Your task to perform on an android device: View the shopping cart on newegg. Search for "macbook pro 15 inch" on newegg, select the first entry, and add it to the cart. Image 0: 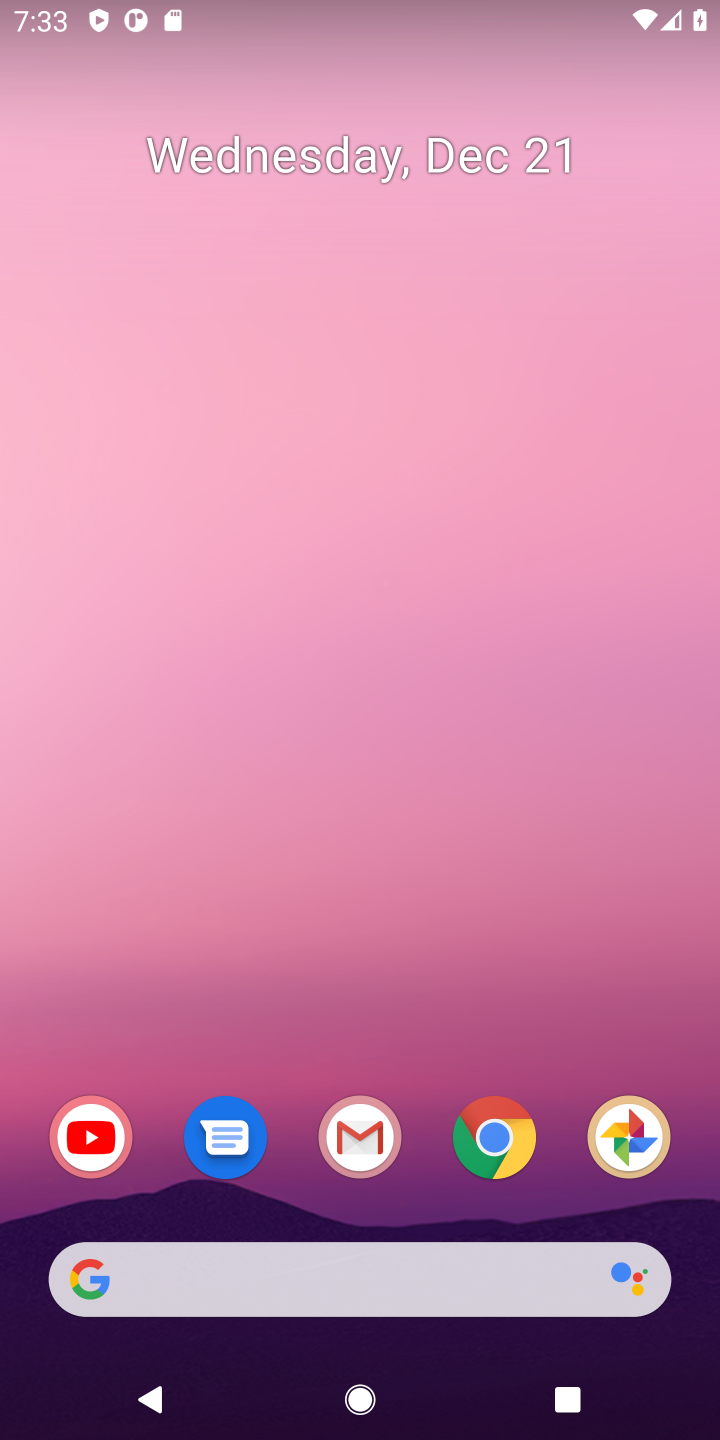
Step 0: click (511, 1153)
Your task to perform on an android device: View the shopping cart on newegg. Search for "macbook pro 15 inch" on newegg, select the first entry, and add it to the cart. Image 1: 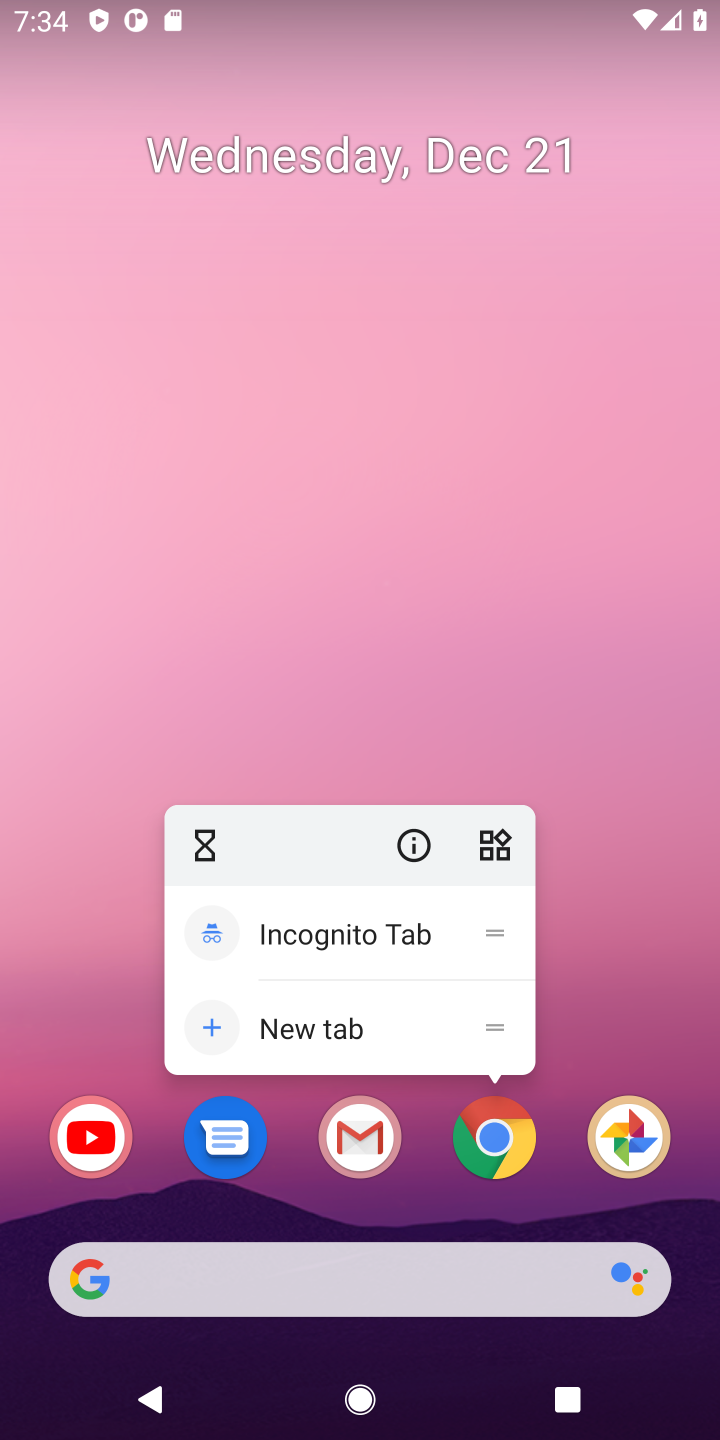
Step 1: click (494, 1144)
Your task to perform on an android device: View the shopping cart on newegg. Search for "macbook pro 15 inch" on newegg, select the first entry, and add it to the cart. Image 2: 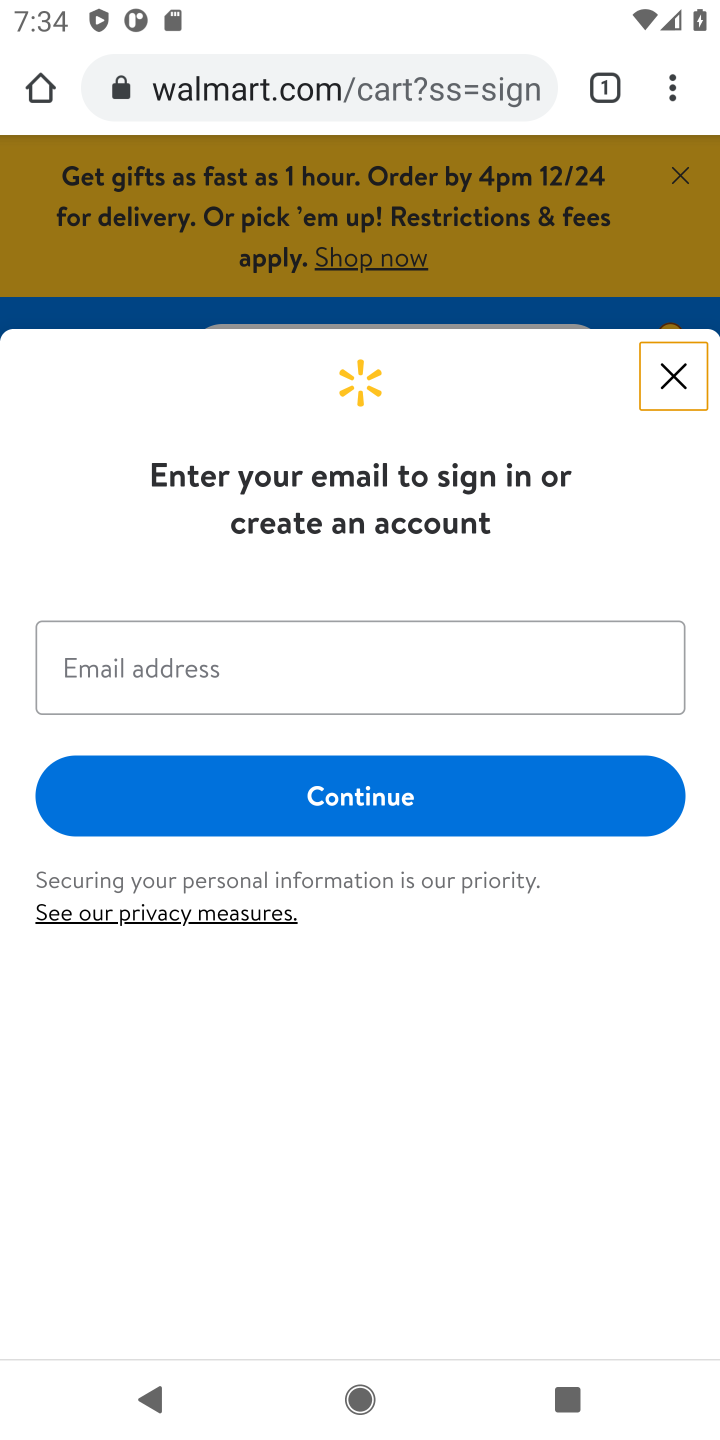
Step 2: click (230, 101)
Your task to perform on an android device: View the shopping cart on newegg. Search for "macbook pro 15 inch" on newegg, select the first entry, and add it to the cart. Image 3: 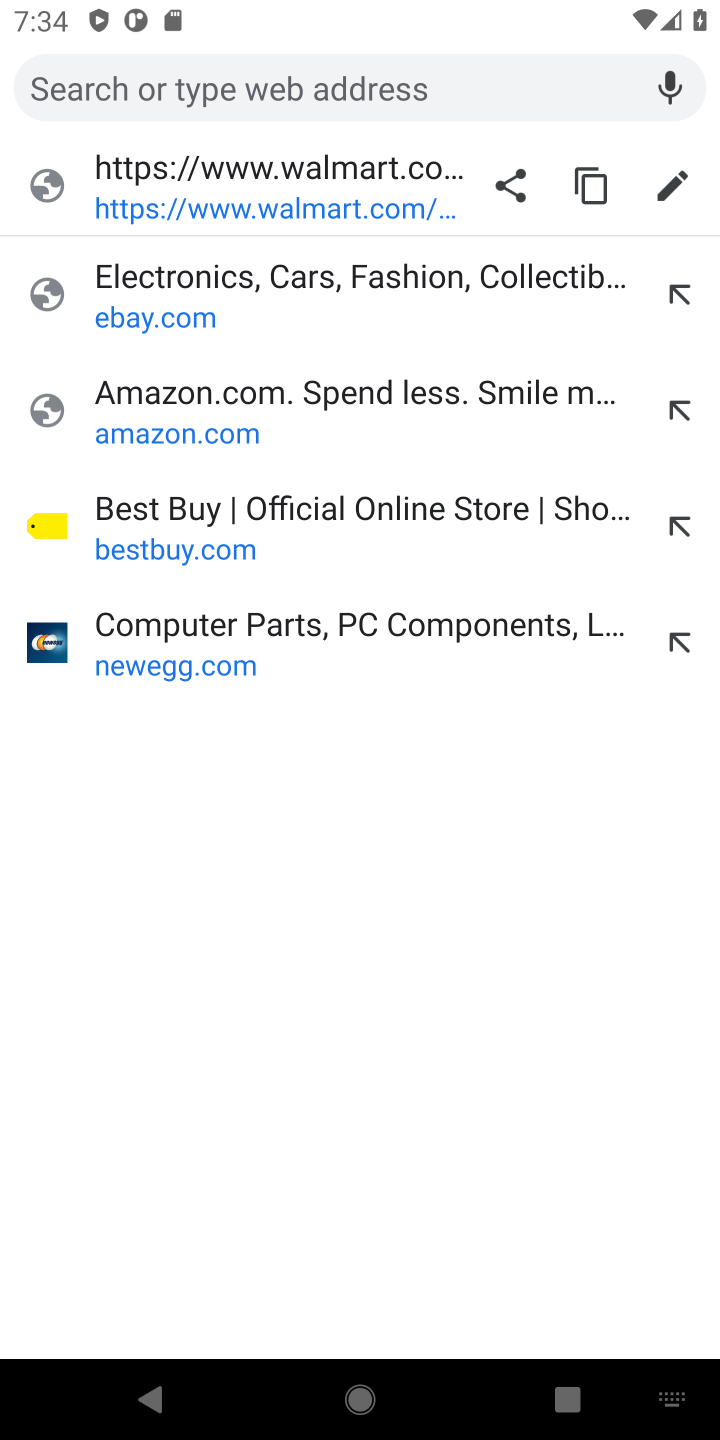
Step 3: click (184, 661)
Your task to perform on an android device: View the shopping cart on newegg. Search for "macbook pro 15 inch" on newegg, select the first entry, and add it to the cart. Image 4: 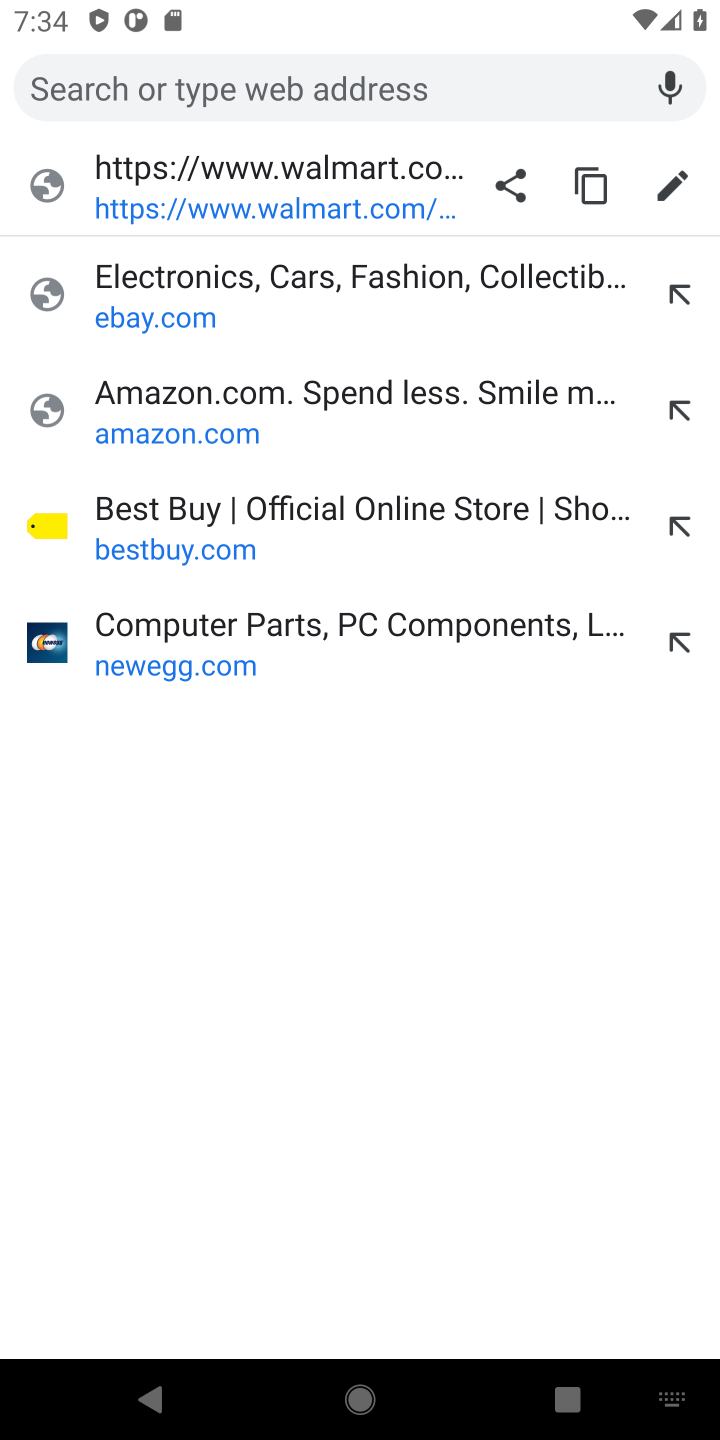
Step 4: click (146, 670)
Your task to perform on an android device: View the shopping cart on newegg. Search for "macbook pro 15 inch" on newegg, select the first entry, and add it to the cart. Image 5: 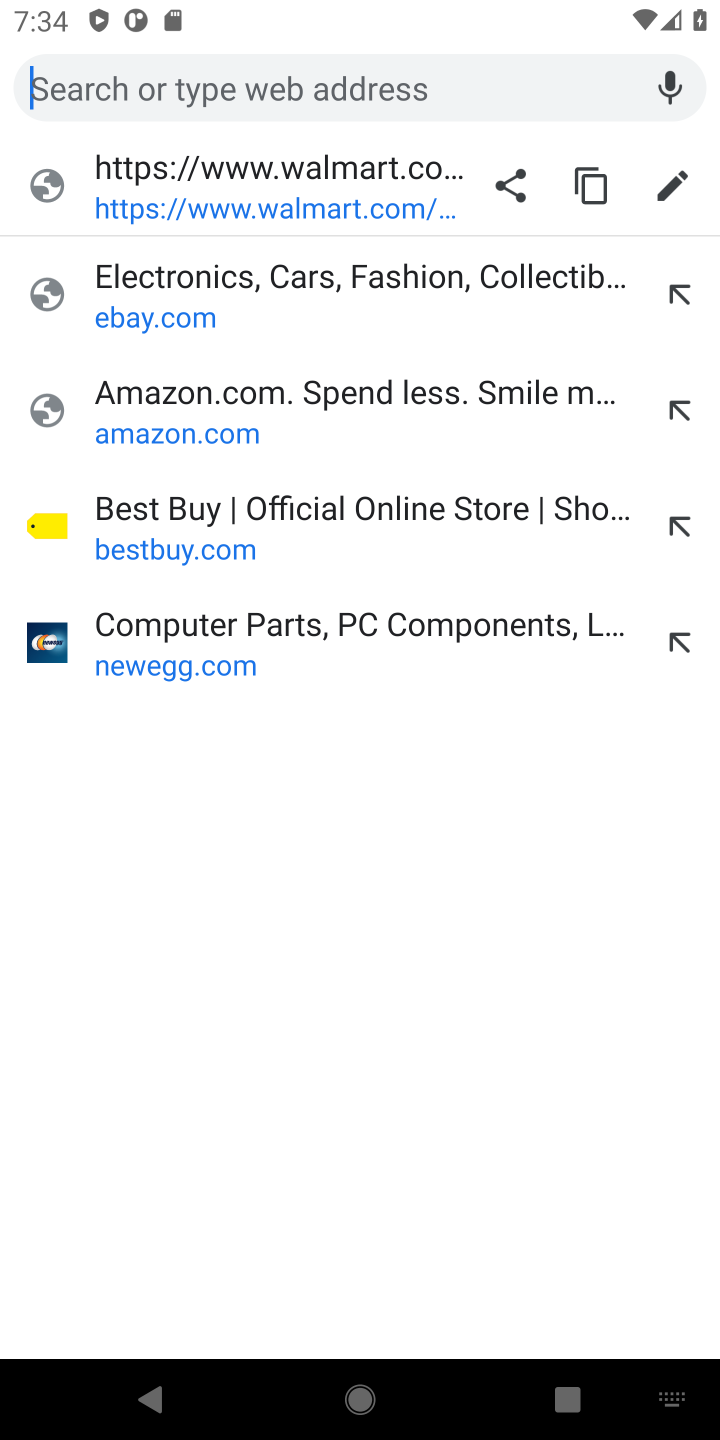
Step 5: click (137, 665)
Your task to perform on an android device: View the shopping cart on newegg. Search for "macbook pro 15 inch" on newegg, select the first entry, and add it to the cart. Image 6: 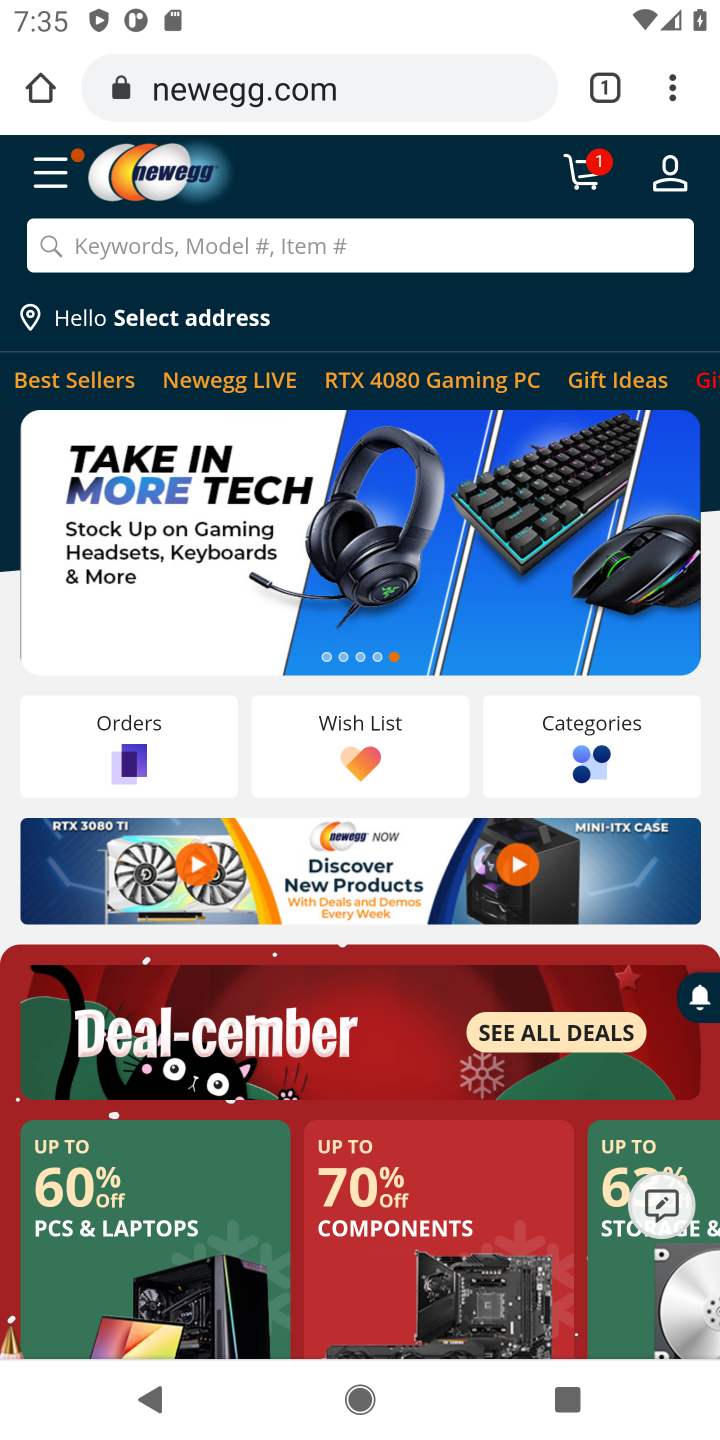
Step 6: click (579, 186)
Your task to perform on an android device: View the shopping cart on newegg. Search for "macbook pro 15 inch" on newegg, select the first entry, and add it to the cart. Image 7: 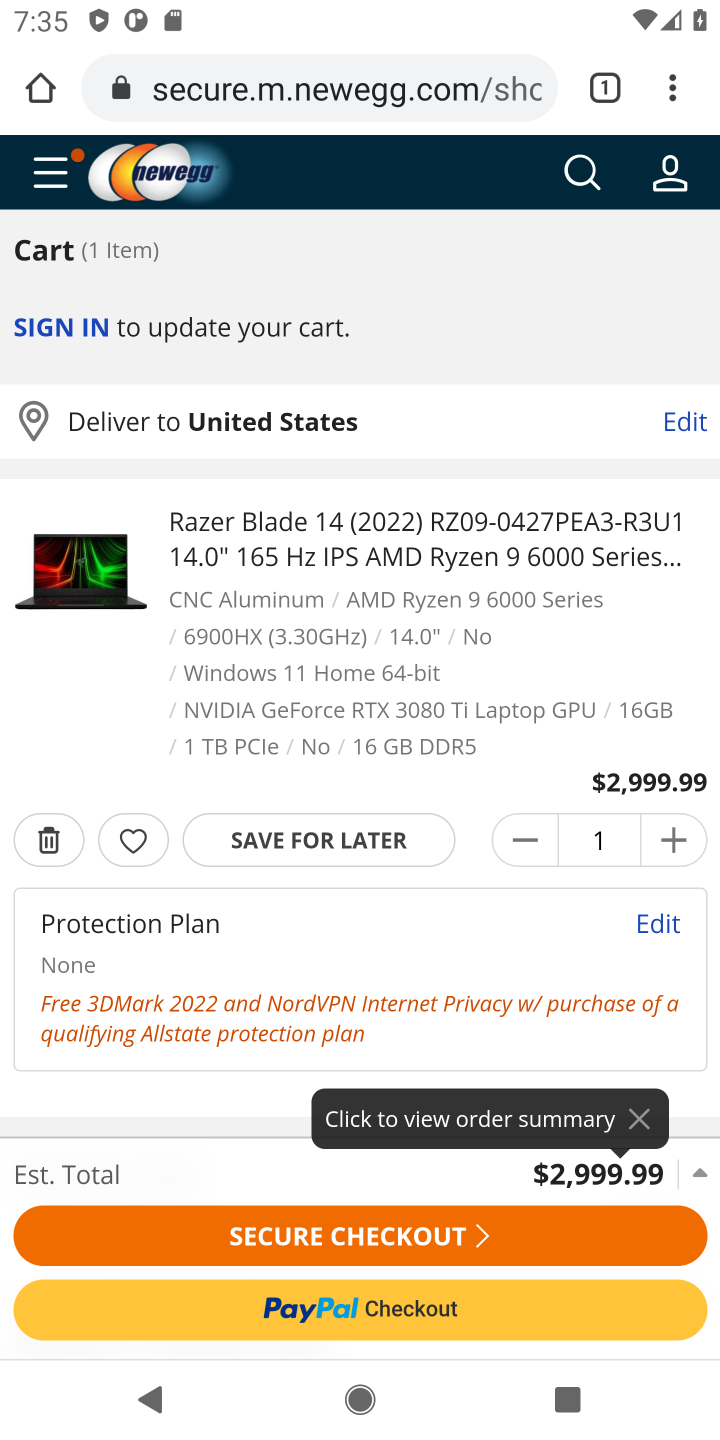
Step 7: click (575, 177)
Your task to perform on an android device: View the shopping cart on newegg. Search for "macbook pro 15 inch" on newegg, select the first entry, and add it to the cart. Image 8: 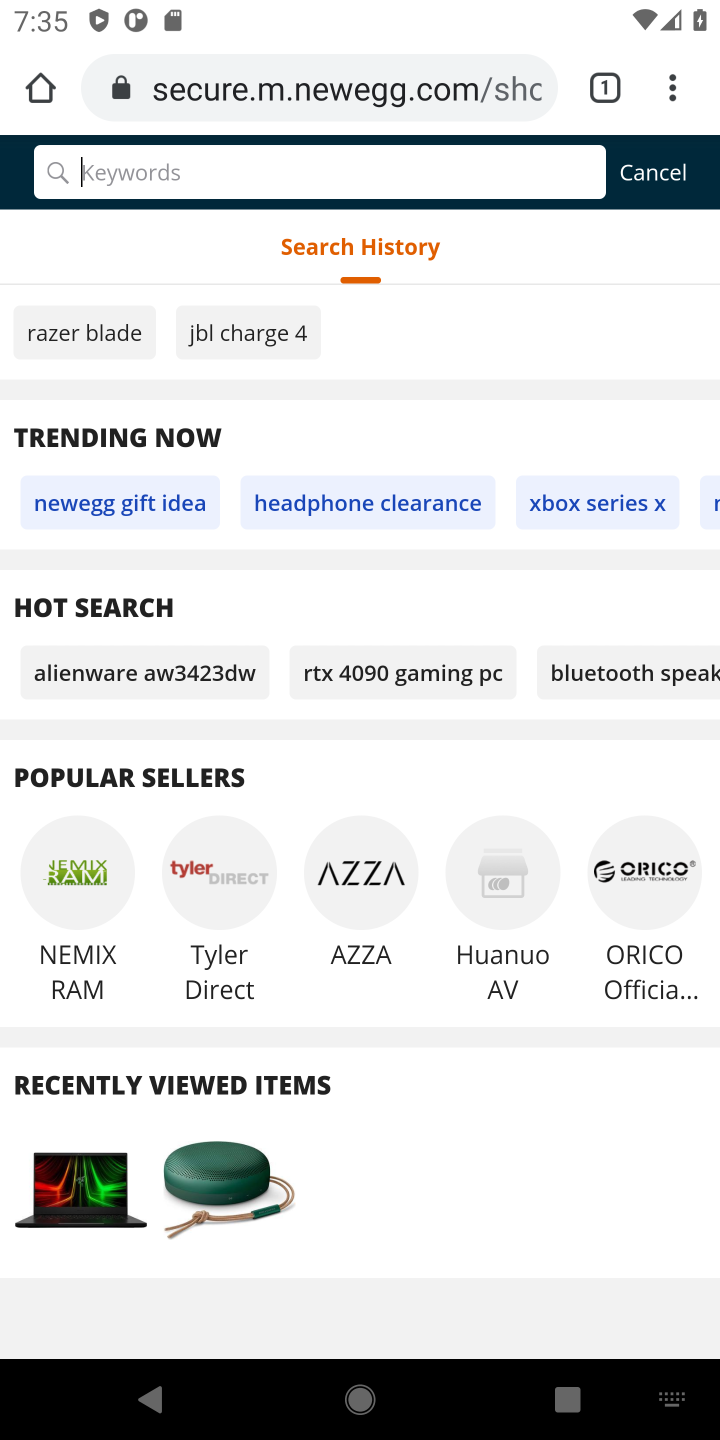
Step 8: type "macbook pro 15 inch"
Your task to perform on an android device: View the shopping cart on newegg. Search for "macbook pro 15 inch" on newegg, select the first entry, and add it to the cart. Image 9: 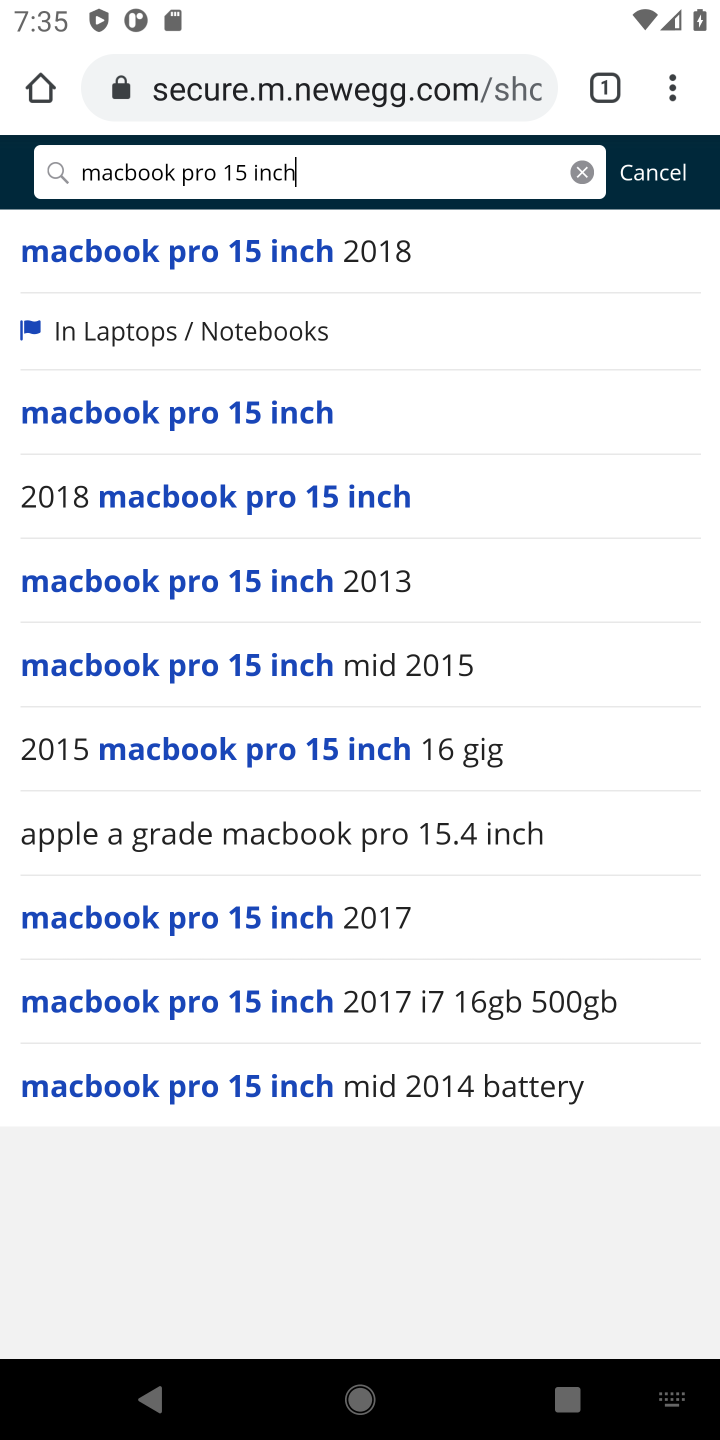
Step 9: click (155, 421)
Your task to perform on an android device: View the shopping cart on newegg. Search for "macbook pro 15 inch" on newegg, select the first entry, and add it to the cart. Image 10: 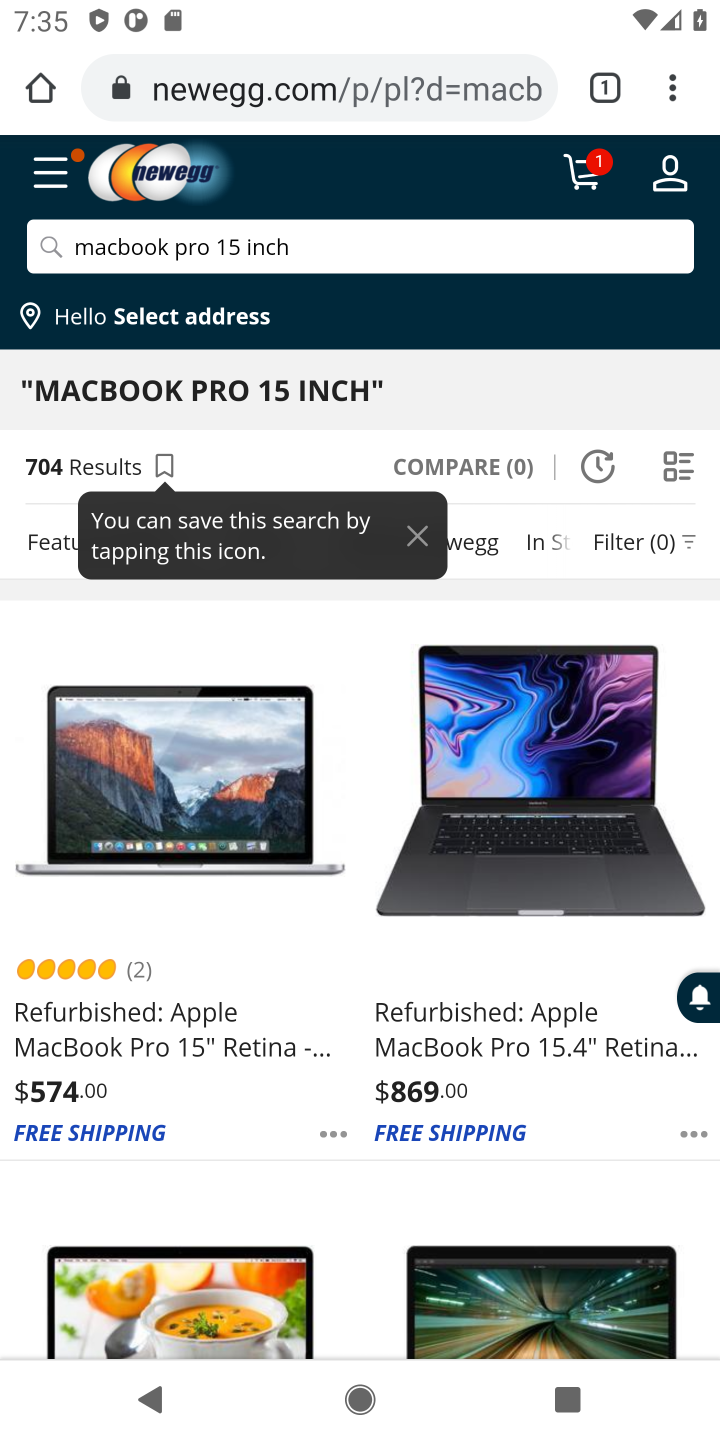
Step 10: click (131, 1051)
Your task to perform on an android device: View the shopping cart on newegg. Search for "macbook pro 15 inch" on newegg, select the first entry, and add it to the cart. Image 11: 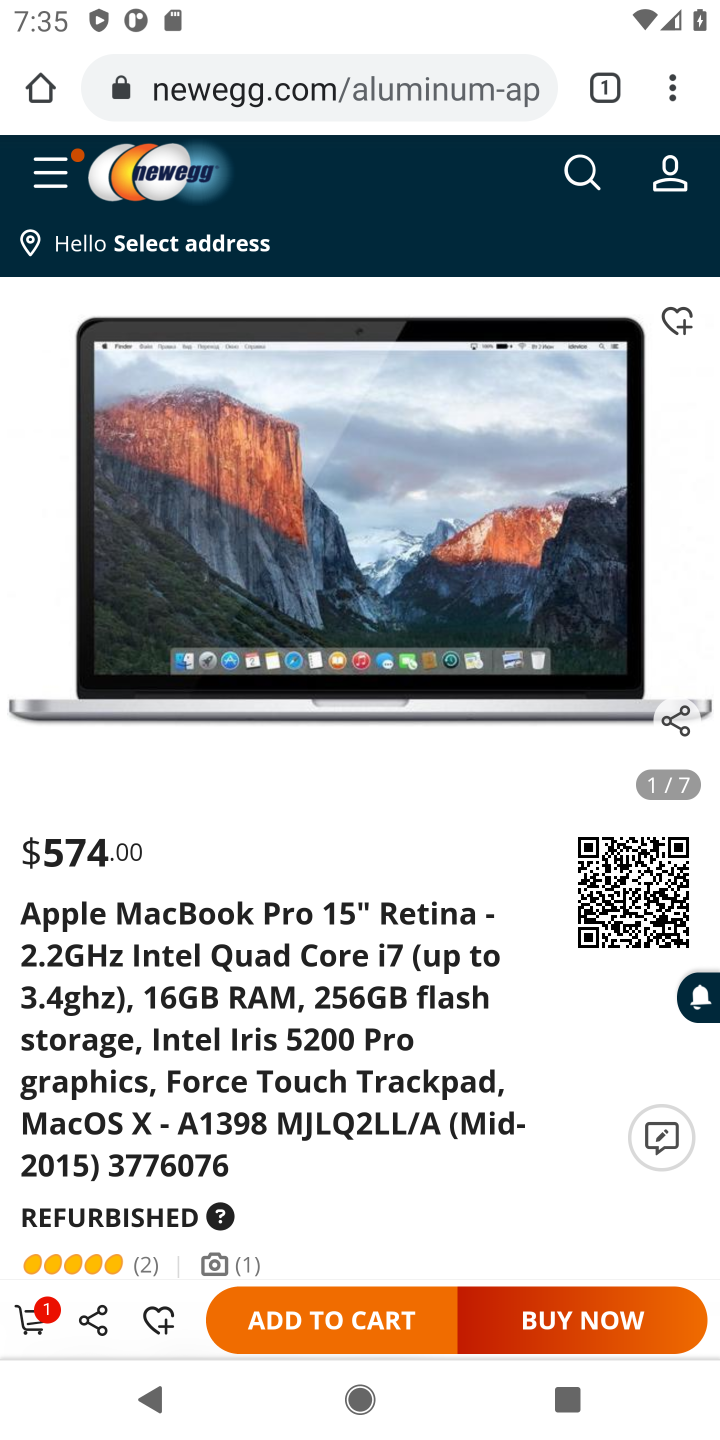
Step 11: click (302, 1324)
Your task to perform on an android device: View the shopping cart on newegg. Search for "macbook pro 15 inch" on newegg, select the first entry, and add it to the cart. Image 12: 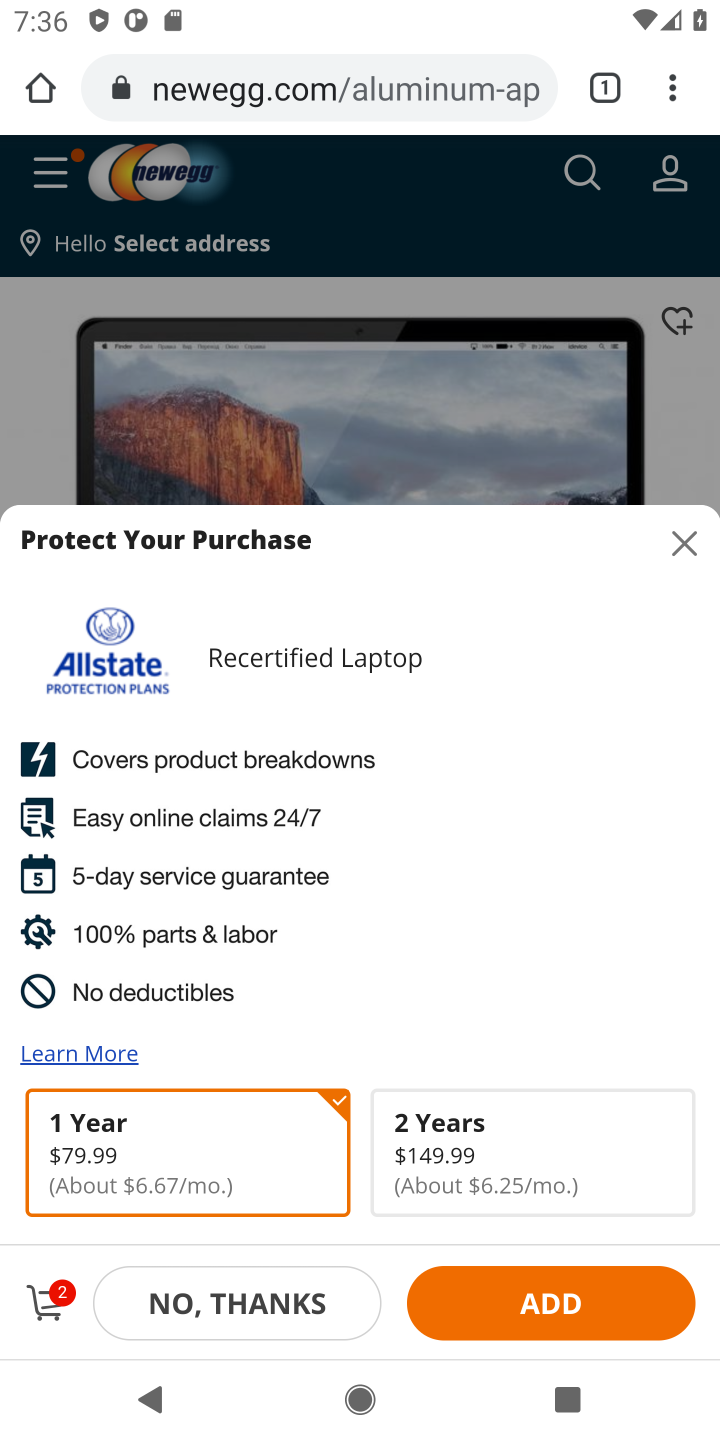
Step 12: task complete